Your task to perform on an android device: check storage Image 0: 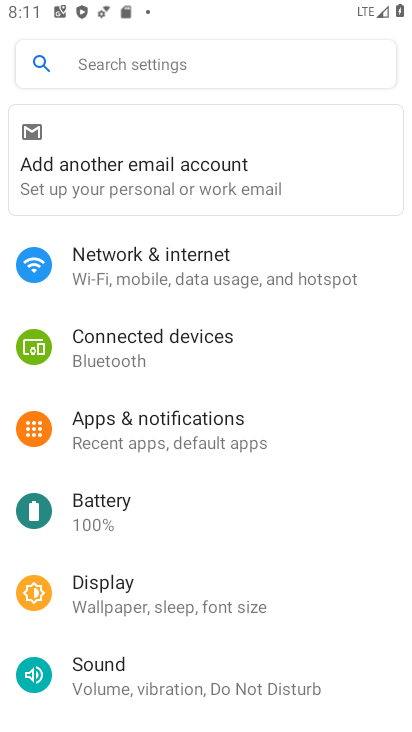
Step 0: drag from (118, 643) to (176, 234)
Your task to perform on an android device: check storage Image 1: 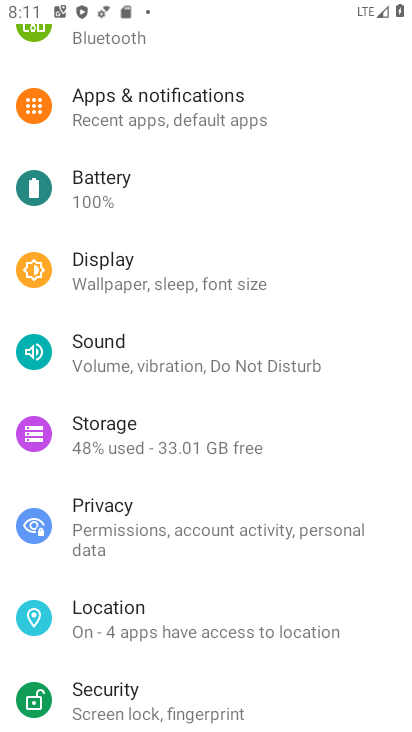
Step 1: click (190, 451)
Your task to perform on an android device: check storage Image 2: 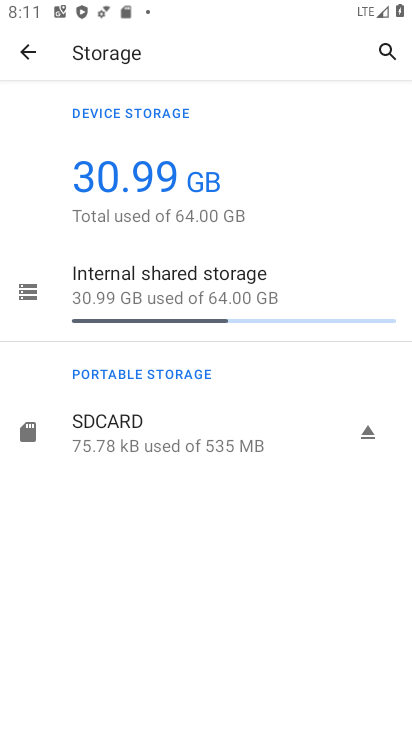
Step 2: task complete